Your task to perform on an android device: search for starred emails in the gmail app Image 0: 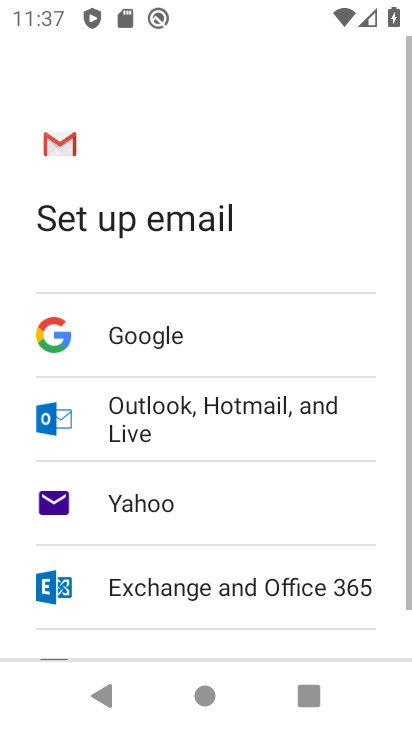
Step 0: press home button
Your task to perform on an android device: search for starred emails in the gmail app Image 1: 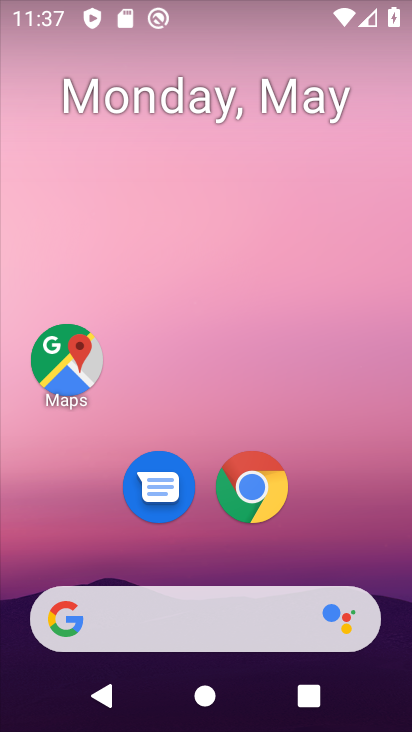
Step 1: drag from (22, 591) to (209, 169)
Your task to perform on an android device: search for starred emails in the gmail app Image 2: 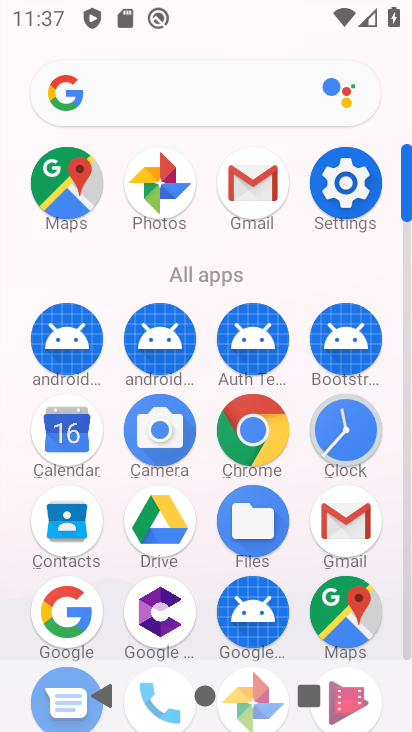
Step 2: click (255, 182)
Your task to perform on an android device: search for starred emails in the gmail app Image 3: 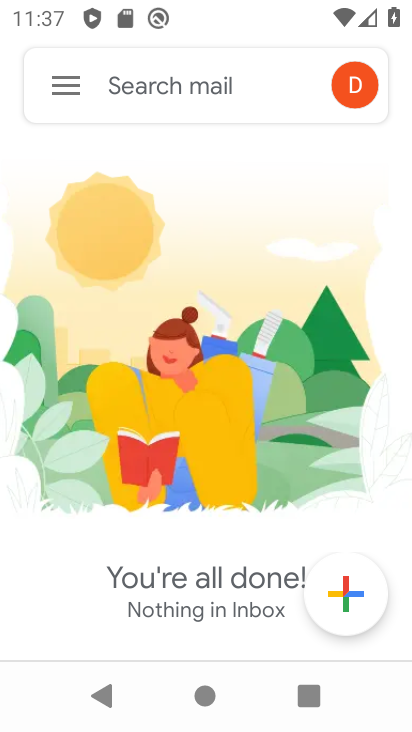
Step 3: click (74, 101)
Your task to perform on an android device: search for starred emails in the gmail app Image 4: 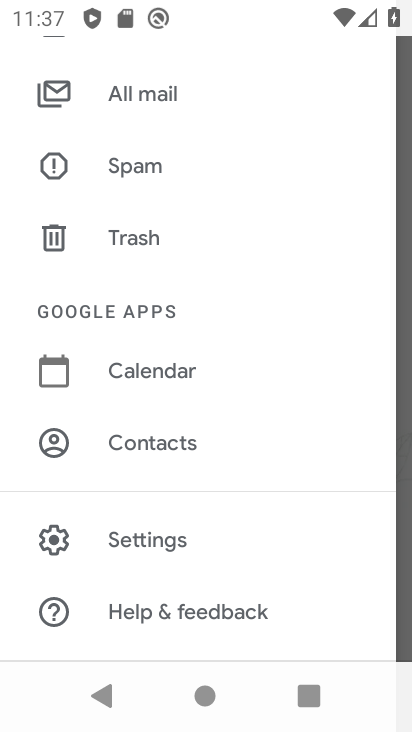
Step 4: click (154, 95)
Your task to perform on an android device: search for starred emails in the gmail app Image 5: 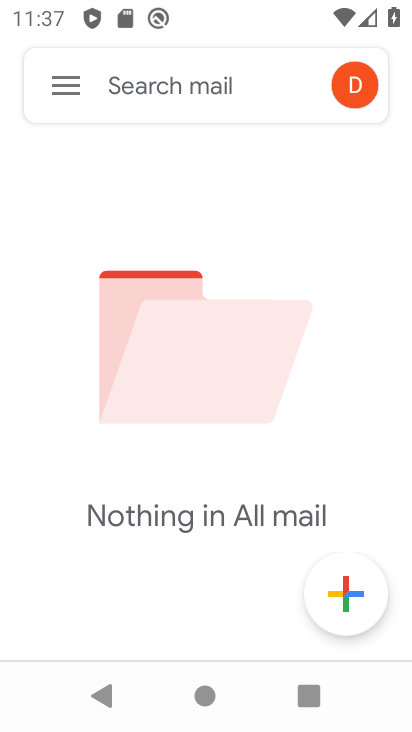
Step 5: task complete